Your task to perform on an android device: Clear the cart on ebay.com. Add razer deathadder to the cart on ebay.com Image 0: 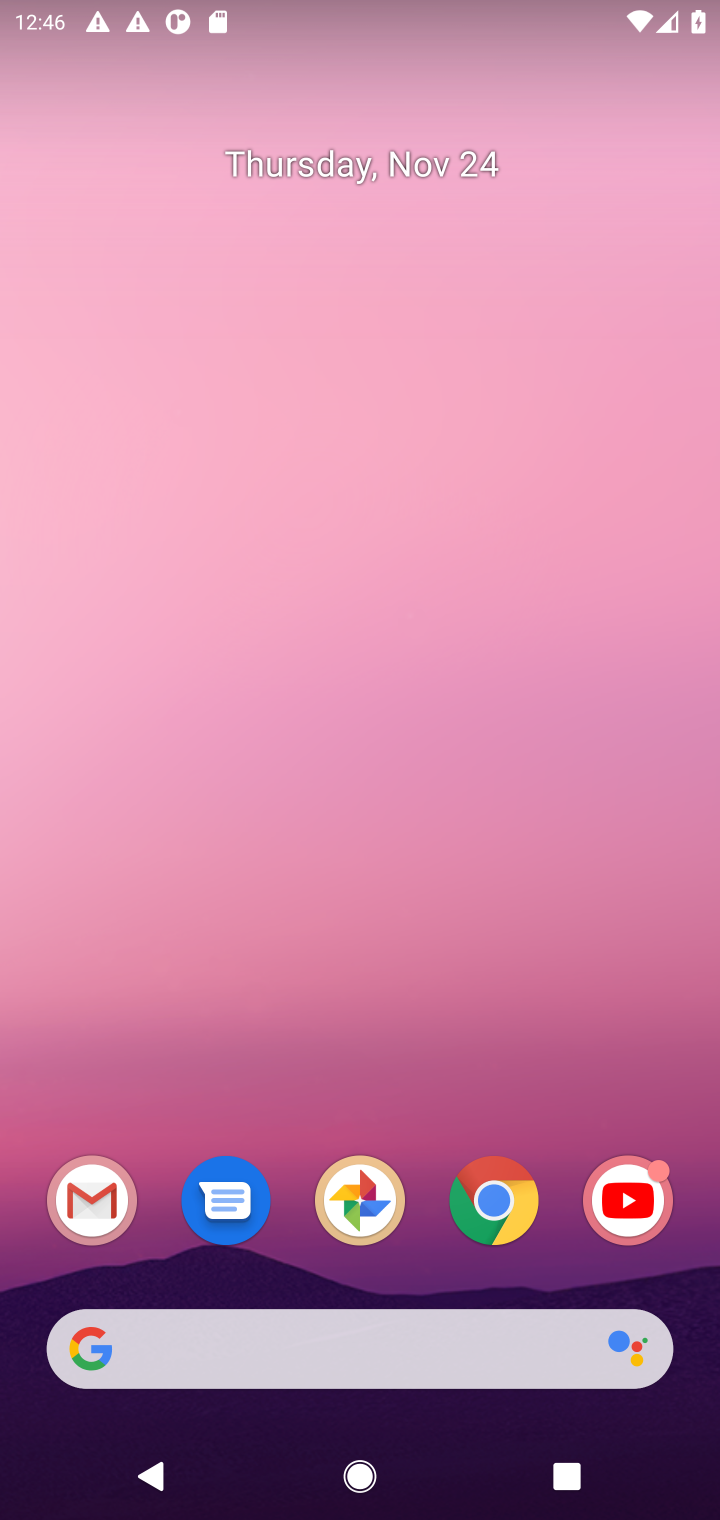
Step 0: click (398, 1327)
Your task to perform on an android device: Clear the cart on ebay.com. Add razer deathadder to the cart on ebay.com Image 1: 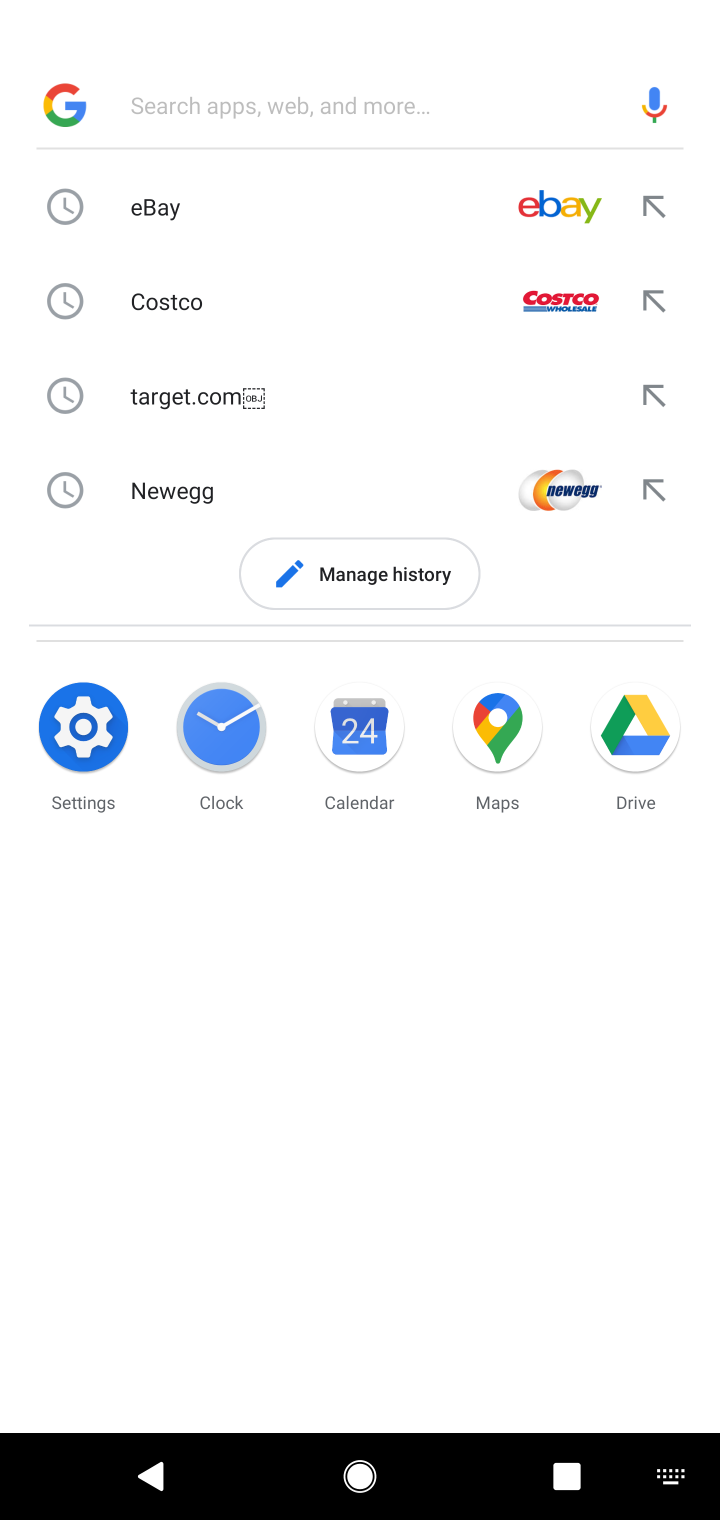
Step 1: click (196, 231)
Your task to perform on an android device: Clear the cart on ebay.com. Add razer deathadder to the cart on ebay.com Image 2: 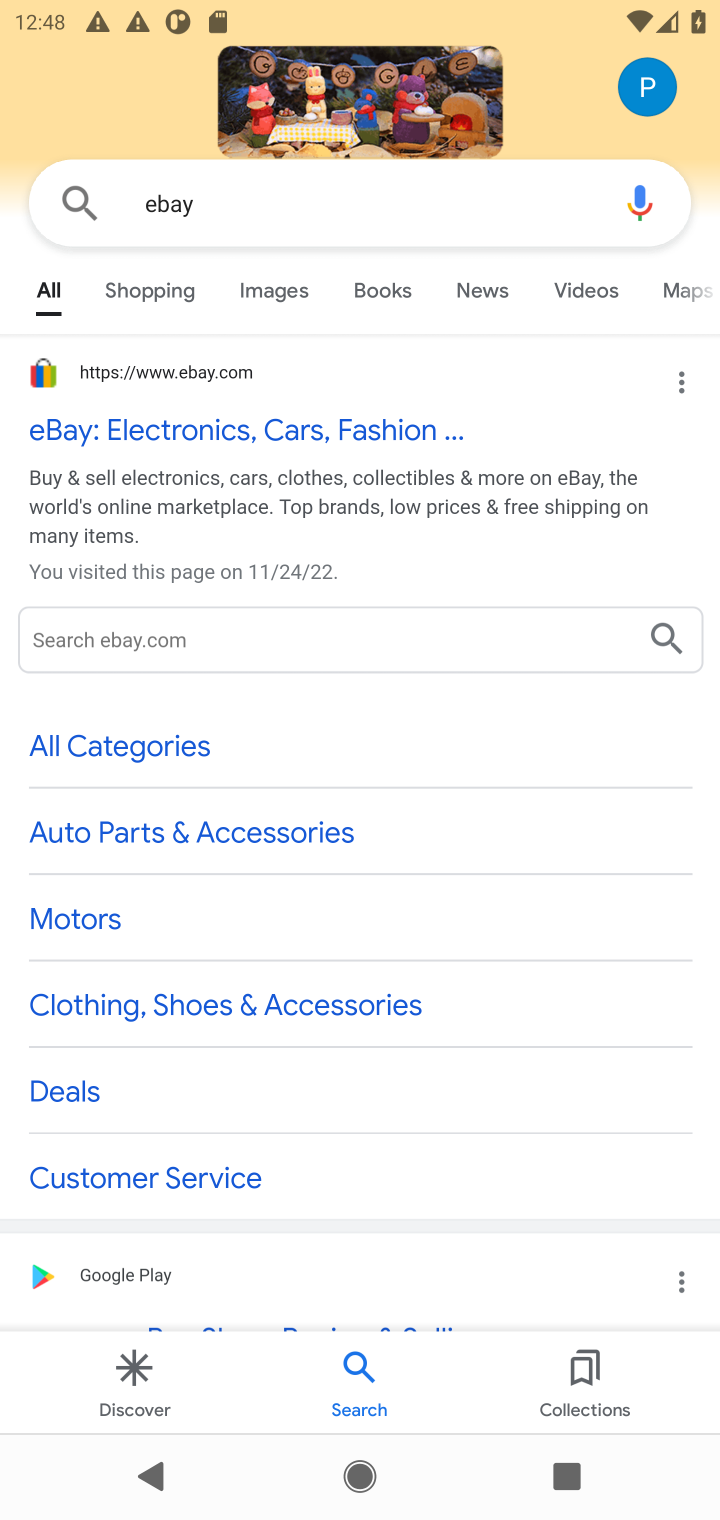
Step 2: click (229, 451)
Your task to perform on an android device: Clear the cart on ebay.com. Add razer deathadder to the cart on ebay.com Image 3: 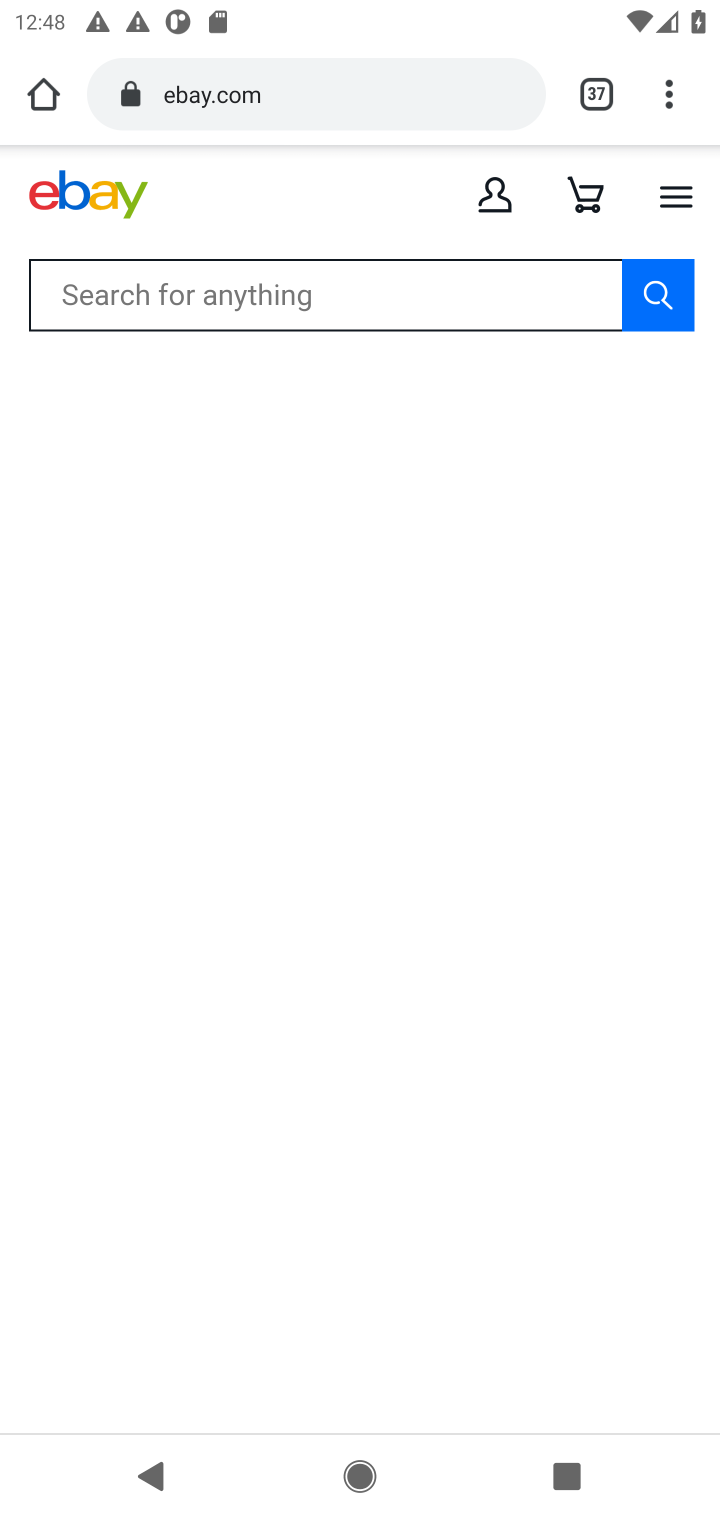
Step 3: task complete